Your task to perform on an android device: delete browsing data in the chrome app Image 0: 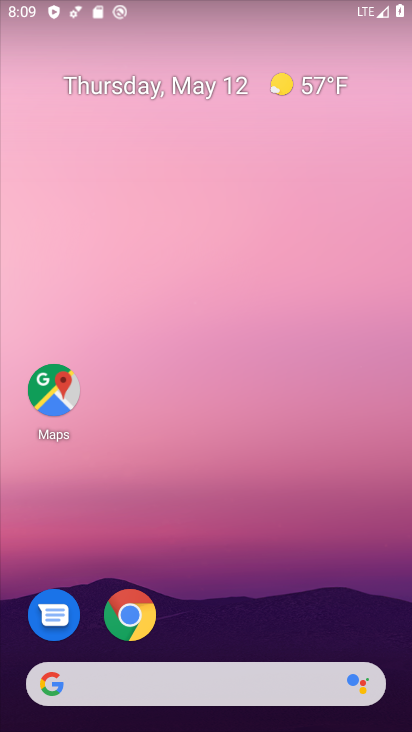
Step 0: drag from (209, 520) to (210, 18)
Your task to perform on an android device: delete browsing data in the chrome app Image 1: 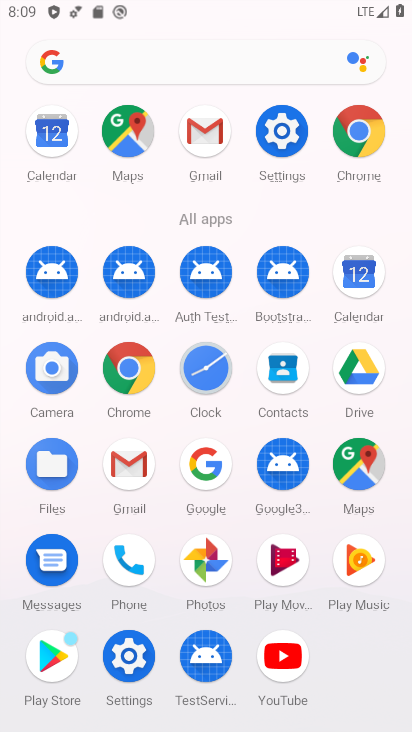
Step 1: drag from (6, 546) to (6, 287)
Your task to perform on an android device: delete browsing data in the chrome app Image 2: 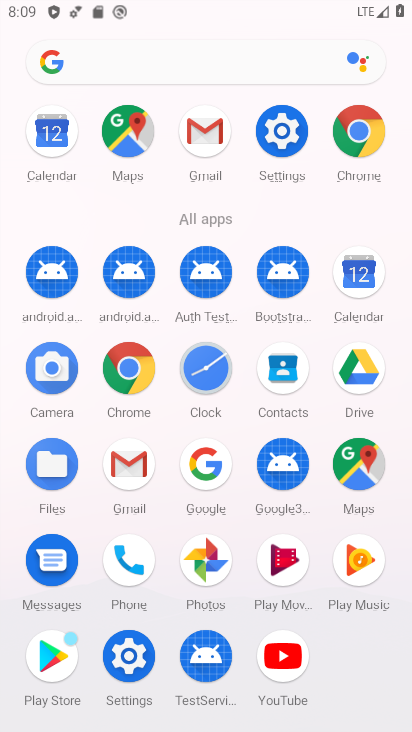
Step 2: click (360, 128)
Your task to perform on an android device: delete browsing data in the chrome app Image 3: 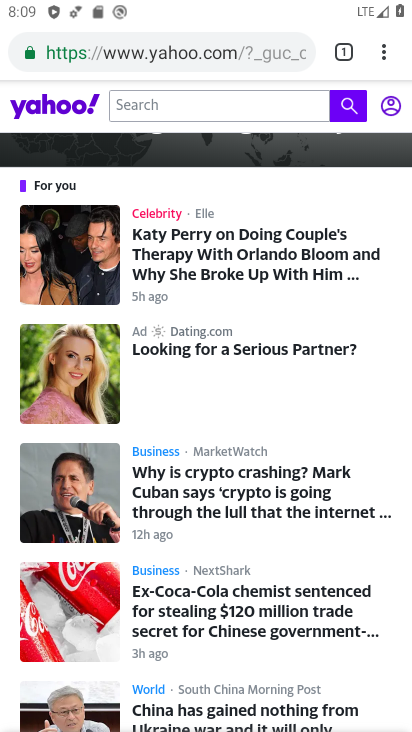
Step 3: drag from (385, 52) to (263, 282)
Your task to perform on an android device: delete browsing data in the chrome app Image 4: 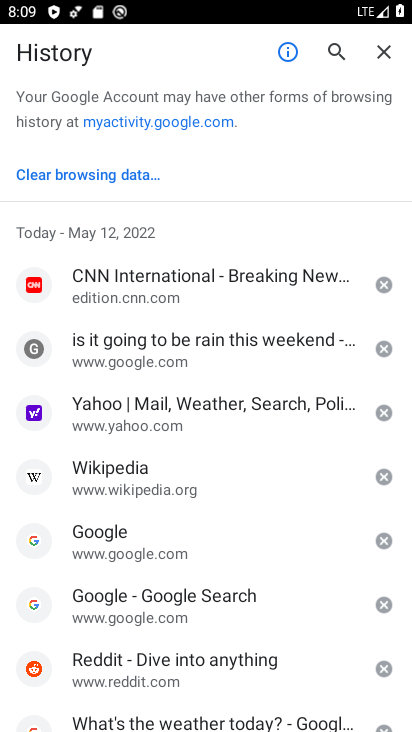
Step 4: click (99, 165)
Your task to perform on an android device: delete browsing data in the chrome app Image 5: 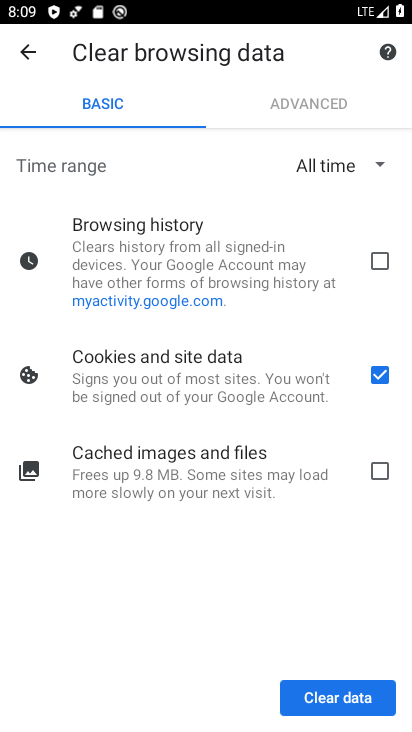
Step 5: click (372, 256)
Your task to perform on an android device: delete browsing data in the chrome app Image 6: 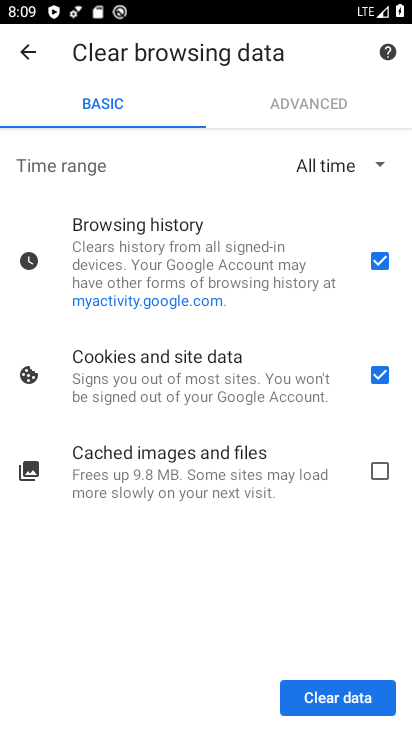
Step 6: click (374, 379)
Your task to perform on an android device: delete browsing data in the chrome app Image 7: 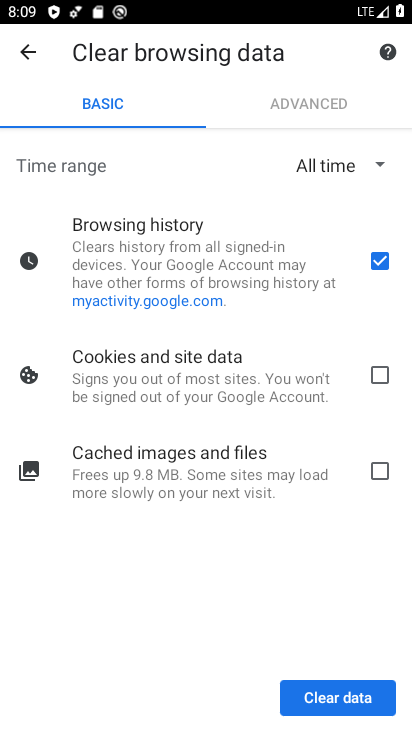
Step 7: click (364, 360)
Your task to perform on an android device: delete browsing data in the chrome app Image 8: 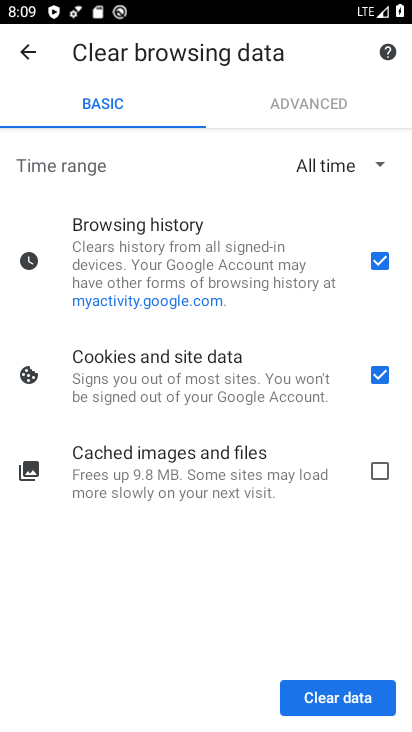
Step 8: click (377, 465)
Your task to perform on an android device: delete browsing data in the chrome app Image 9: 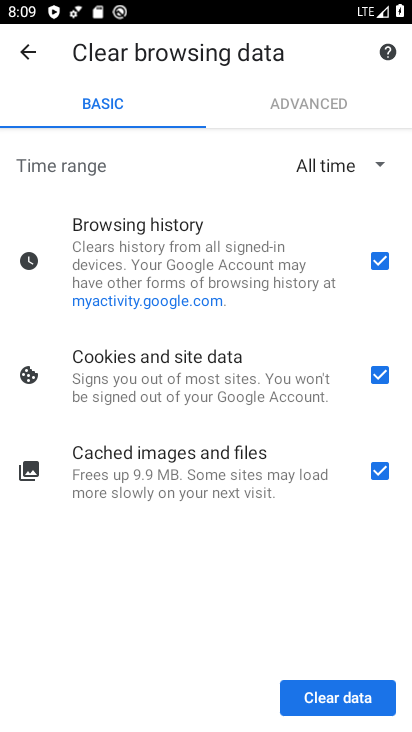
Step 9: click (317, 695)
Your task to perform on an android device: delete browsing data in the chrome app Image 10: 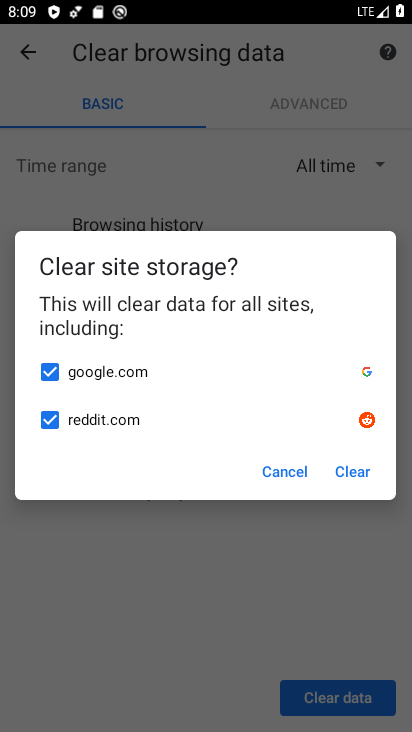
Step 10: click (353, 476)
Your task to perform on an android device: delete browsing data in the chrome app Image 11: 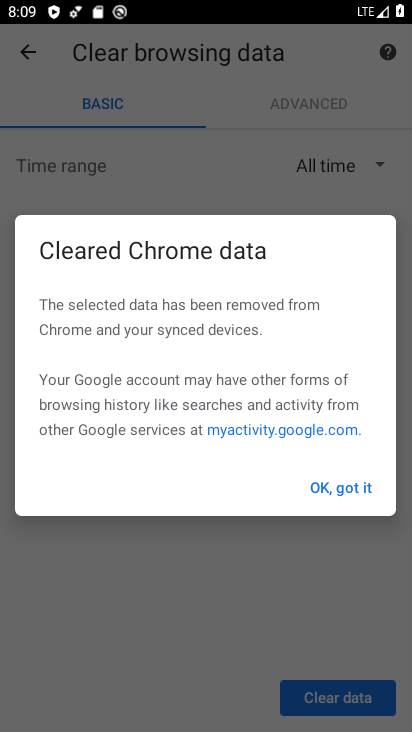
Step 11: click (330, 482)
Your task to perform on an android device: delete browsing data in the chrome app Image 12: 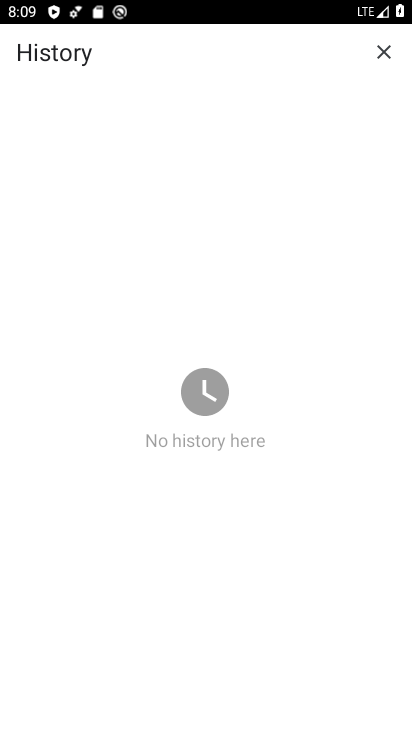
Step 12: task complete